Your task to perform on an android device: change notifications settings Image 0: 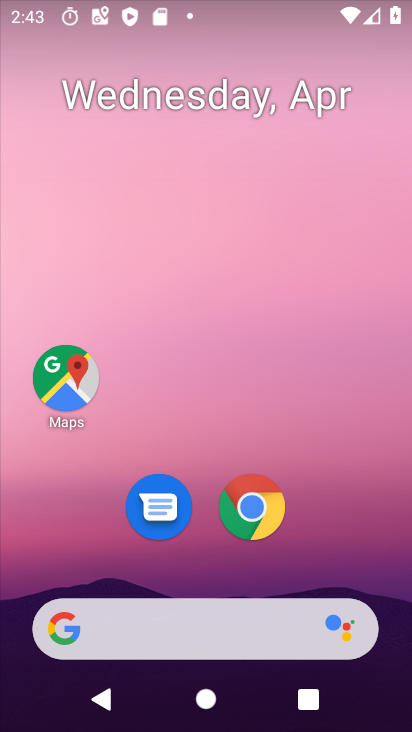
Step 0: click (254, 513)
Your task to perform on an android device: change notifications settings Image 1: 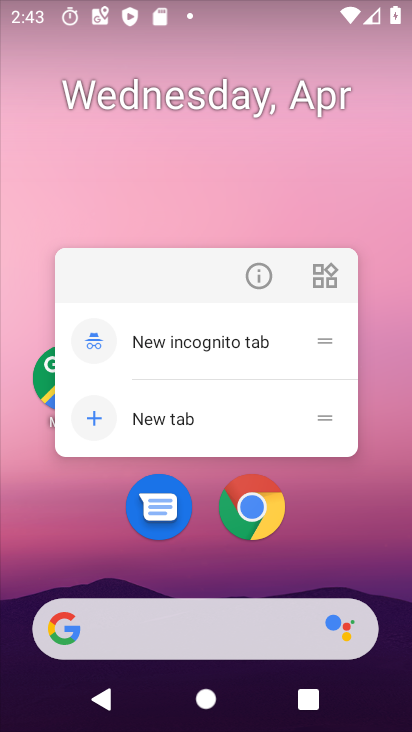
Step 1: click (254, 513)
Your task to perform on an android device: change notifications settings Image 2: 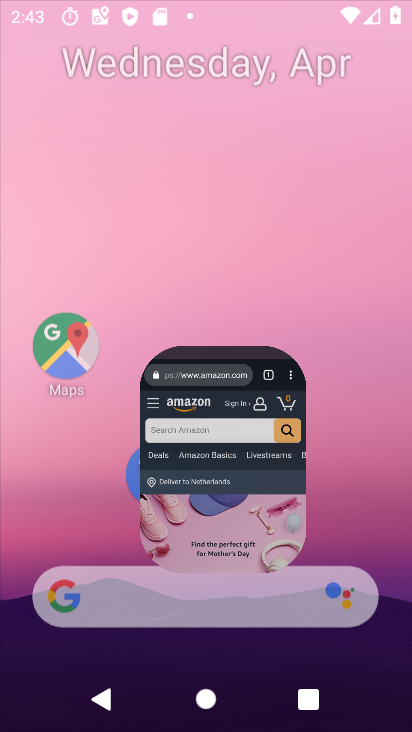
Step 2: click (251, 509)
Your task to perform on an android device: change notifications settings Image 3: 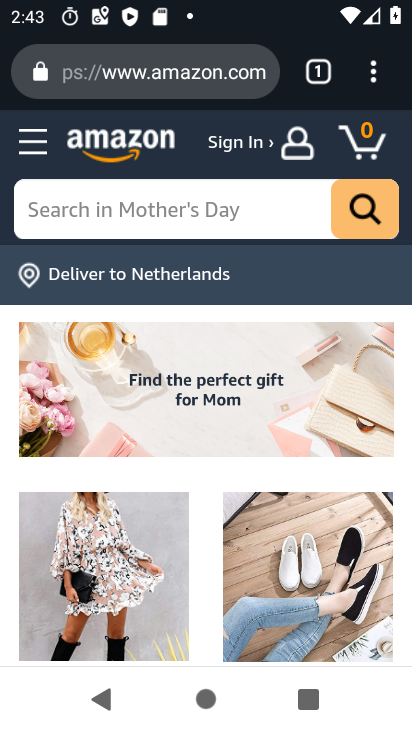
Step 3: drag from (372, 80) to (133, 501)
Your task to perform on an android device: change notifications settings Image 4: 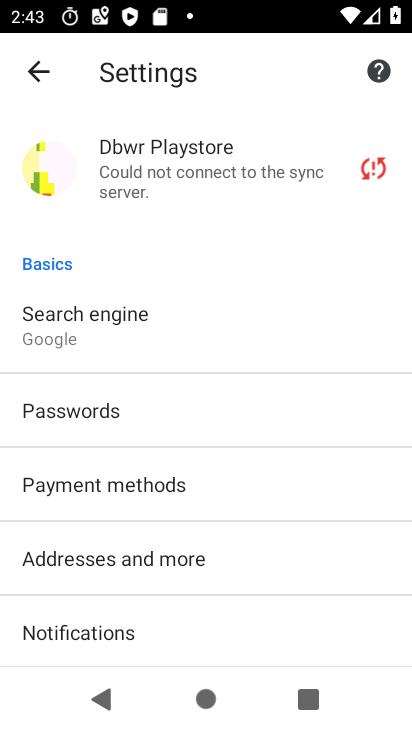
Step 4: click (100, 631)
Your task to perform on an android device: change notifications settings Image 5: 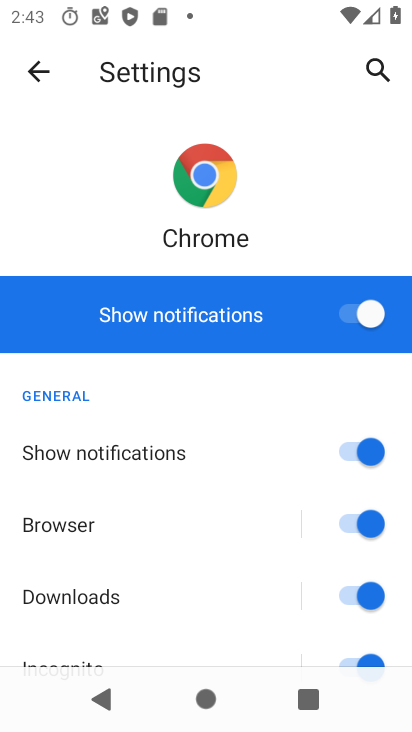
Step 5: drag from (100, 631) to (85, 284)
Your task to perform on an android device: change notifications settings Image 6: 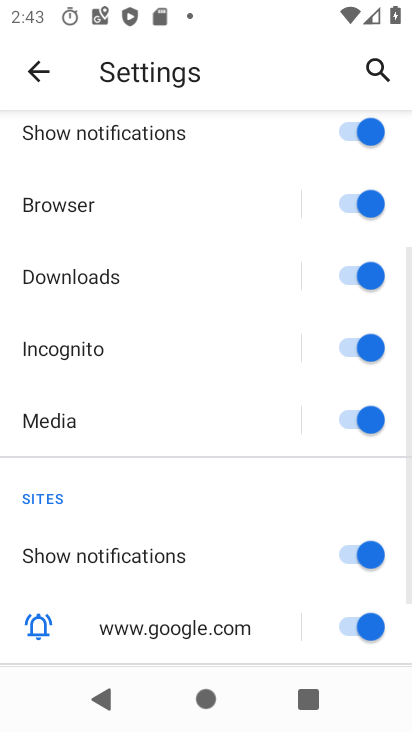
Step 6: drag from (156, 251) to (148, 590)
Your task to perform on an android device: change notifications settings Image 7: 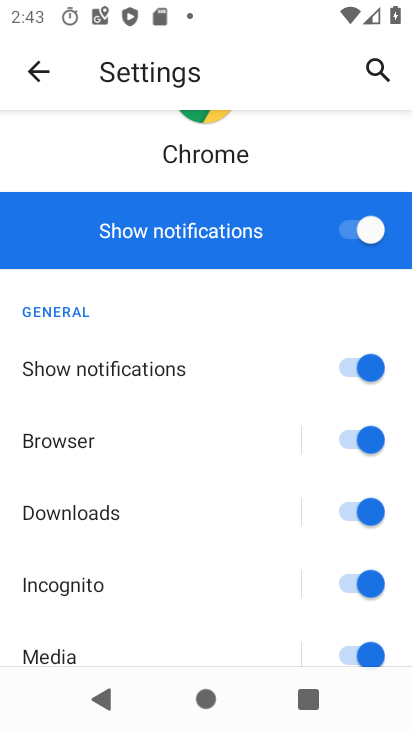
Step 7: click (377, 237)
Your task to perform on an android device: change notifications settings Image 8: 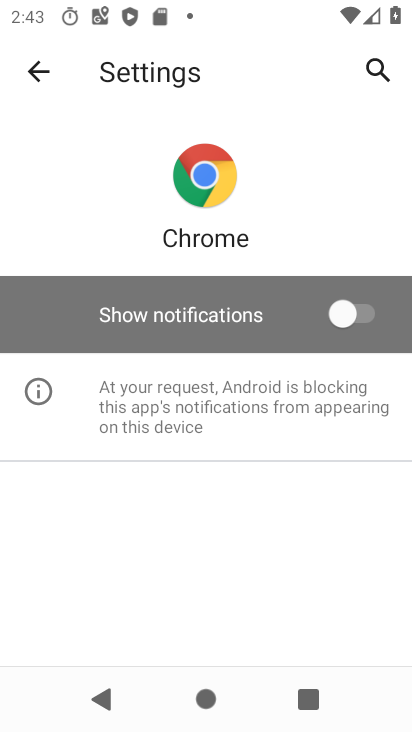
Step 8: task complete